Your task to perform on an android device: Open the map Image 0: 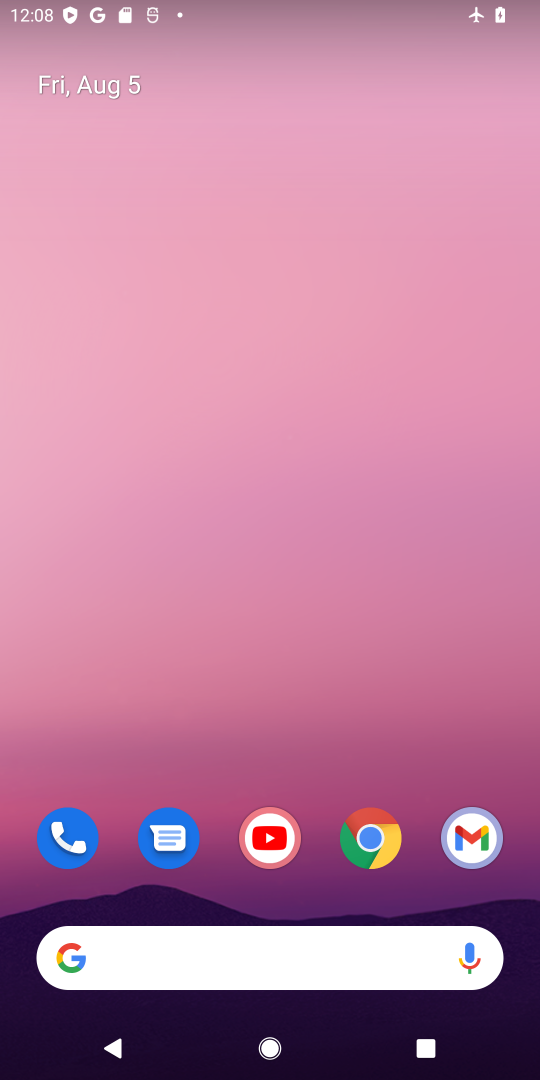
Step 0: drag from (262, 755) to (255, 303)
Your task to perform on an android device: Open the map Image 1: 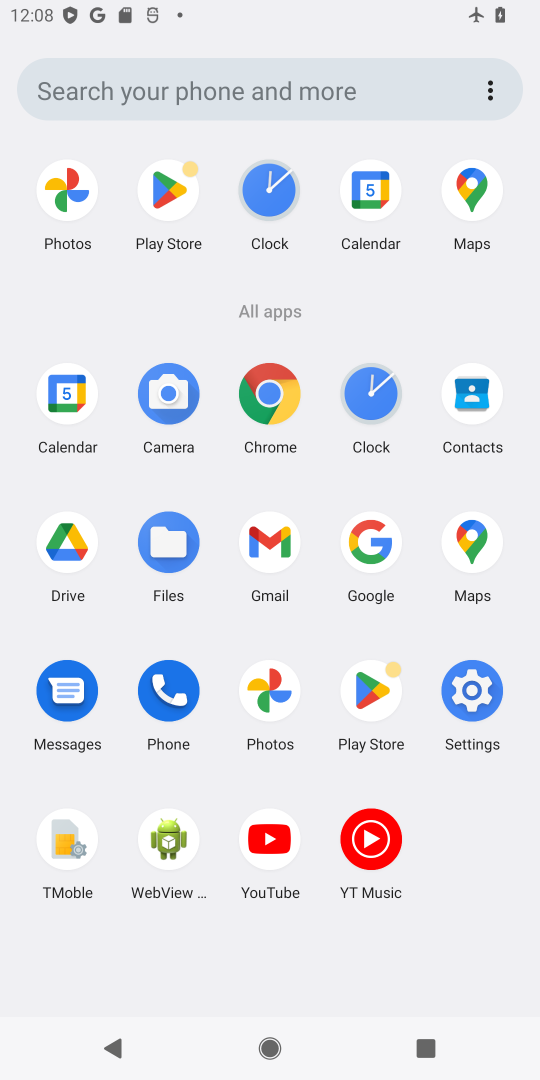
Step 1: click (471, 539)
Your task to perform on an android device: Open the map Image 2: 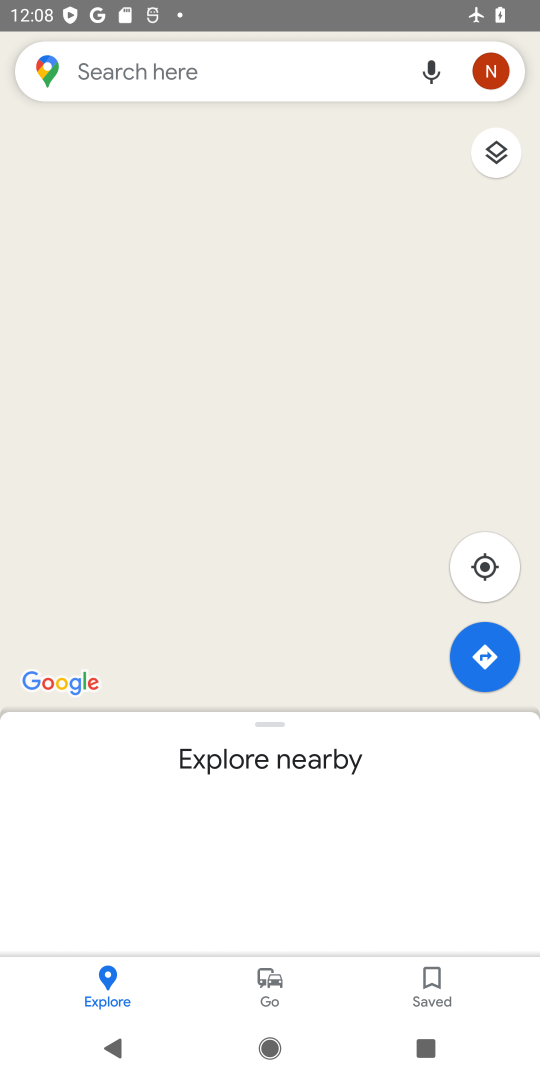
Step 2: task complete